Your task to perform on an android device: all mails in gmail Image 0: 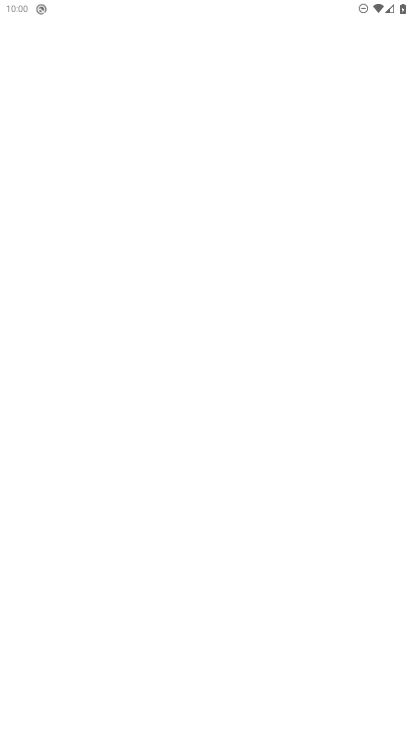
Step 0: press home button
Your task to perform on an android device: all mails in gmail Image 1: 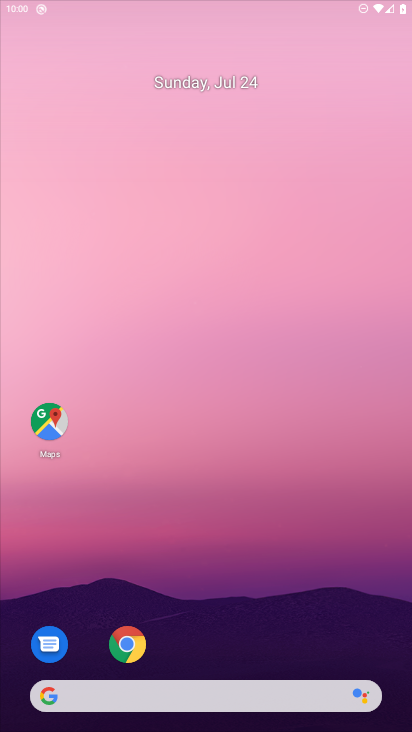
Step 1: drag from (285, 603) to (342, 111)
Your task to perform on an android device: all mails in gmail Image 2: 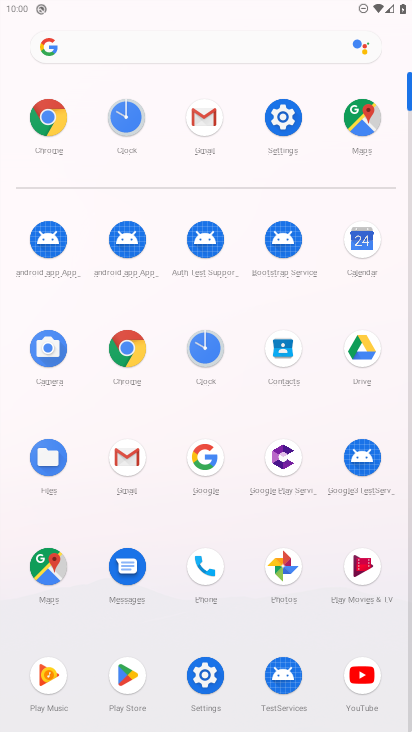
Step 2: click (187, 138)
Your task to perform on an android device: all mails in gmail Image 3: 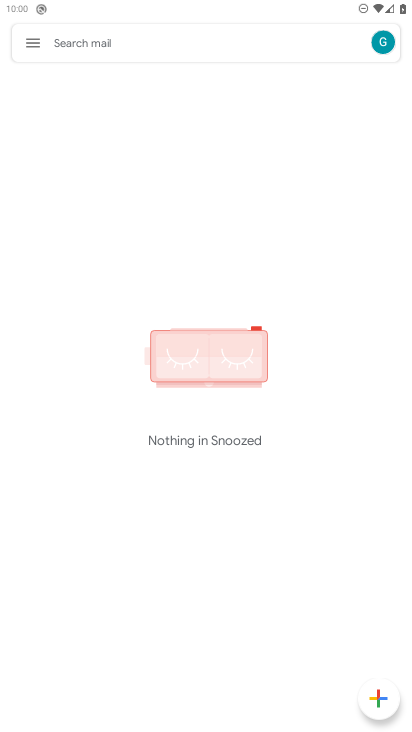
Step 3: click (34, 45)
Your task to perform on an android device: all mails in gmail Image 4: 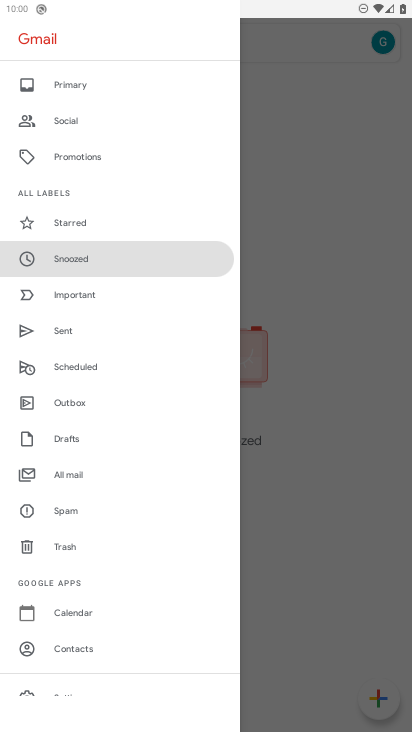
Step 4: click (59, 468)
Your task to perform on an android device: all mails in gmail Image 5: 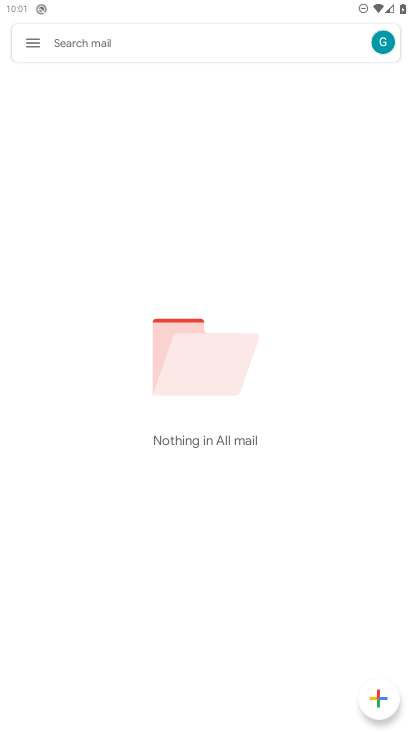
Step 5: task complete